Your task to perform on an android device: find which apps use the phone's location Image 0: 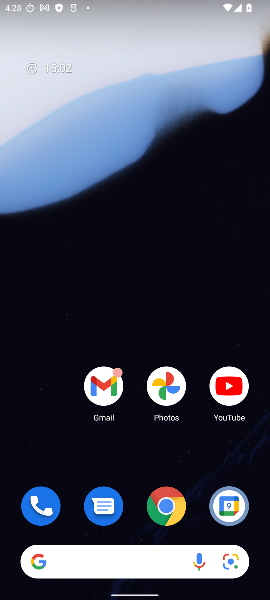
Step 0: drag from (71, 487) to (110, 124)
Your task to perform on an android device: find which apps use the phone's location Image 1: 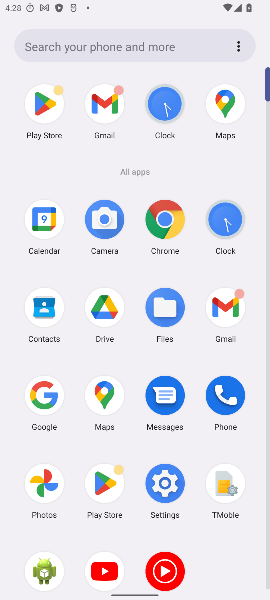
Step 1: click (153, 476)
Your task to perform on an android device: find which apps use the phone's location Image 2: 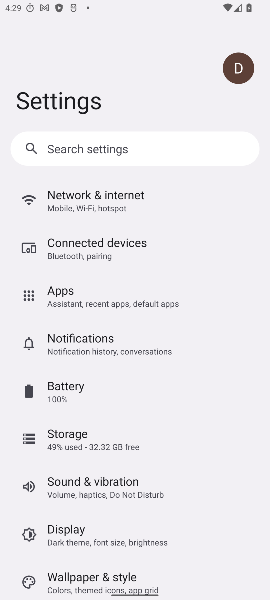
Step 2: click (79, 295)
Your task to perform on an android device: find which apps use the phone's location Image 3: 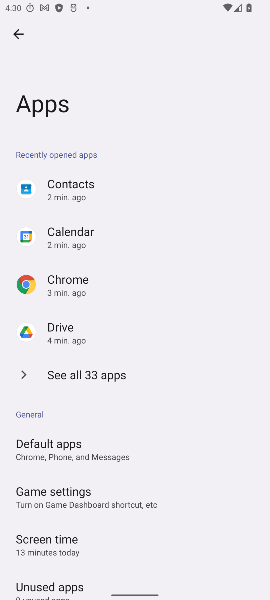
Step 3: task complete